Your task to perform on an android device: delete location history Image 0: 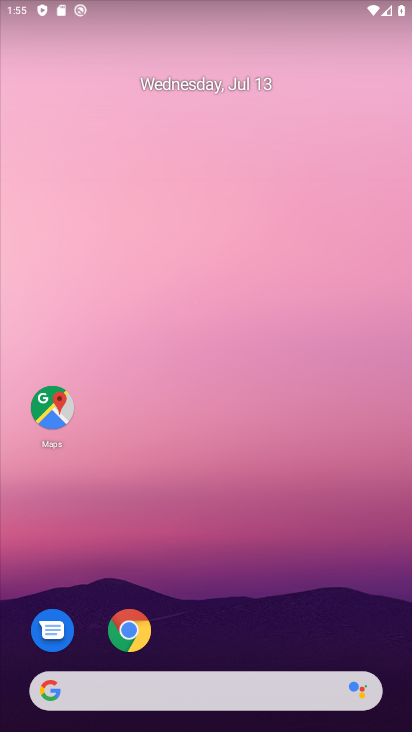
Step 0: drag from (213, 681) to (192, 351)
Your task to perform on an android device: delete location history Image 1: 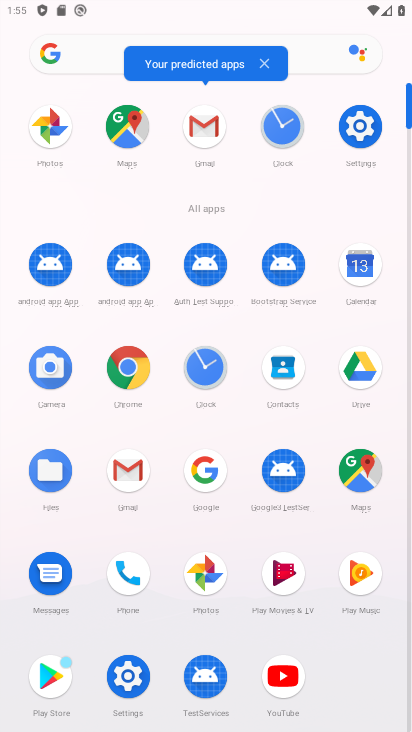
Step 1: click (357, 476)
Your task to perform on an android device: delete location history Image 2: 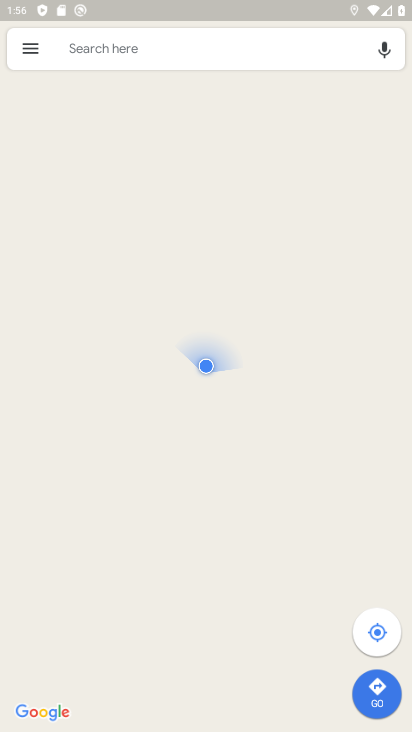
Step 2: click (34, 53)
Your task to perform on an android device: delete location history Image 3: 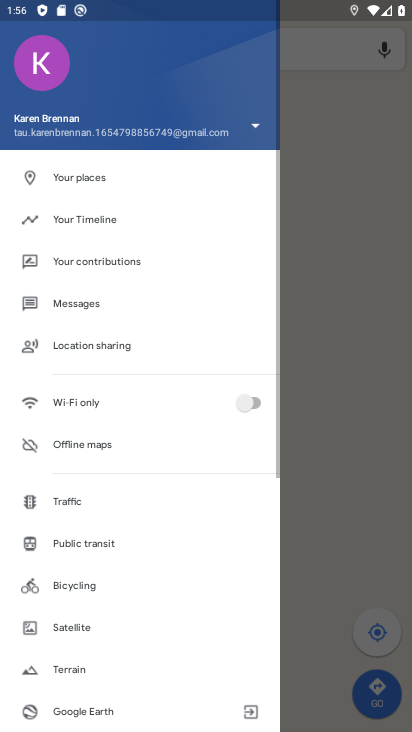
Step 3: click (104, 216)
Your task to perform on an android device: delete location history Image 4: 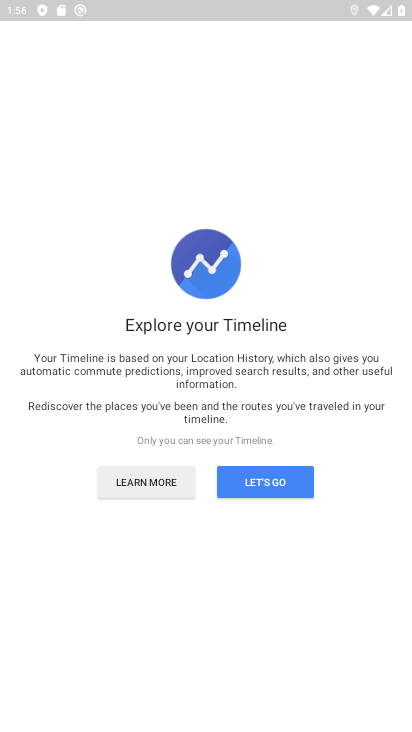
Step 4: click (276, 477)
Your task to perform on an android device: delete location history Image 5: 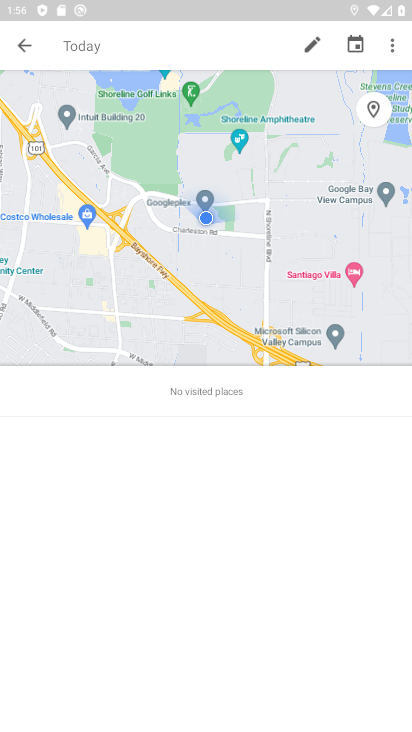
Step 5: click (392, 42)
Your task to perform on an android device: delete location history Image 6: 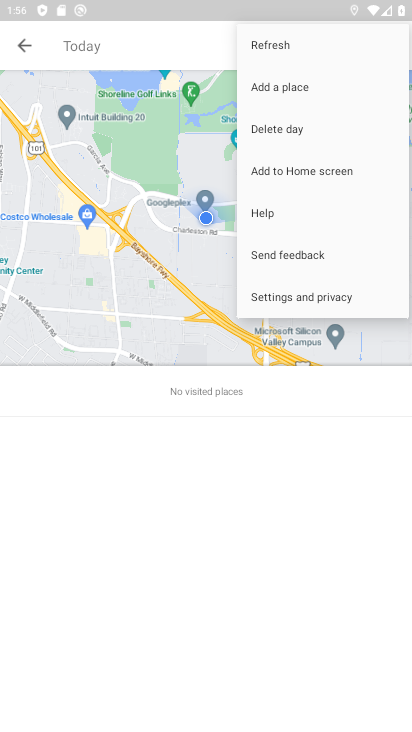
Step 6: click (300, 294)
Your task to perform on an android device: delete location history Image 7: 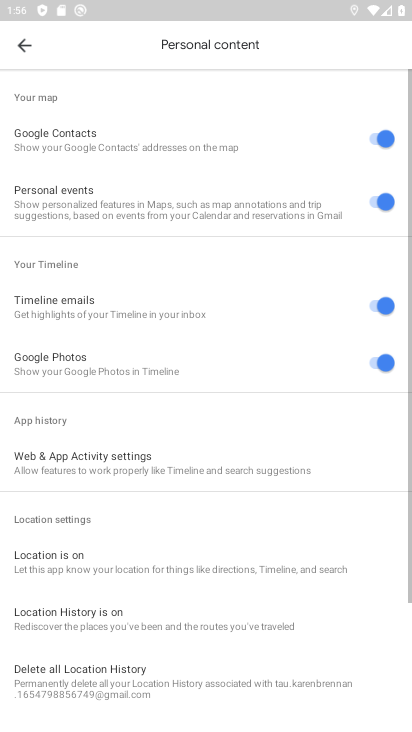
Step 7: click (174, 197)
Your task to perform on an android device: delete location history Image 8: 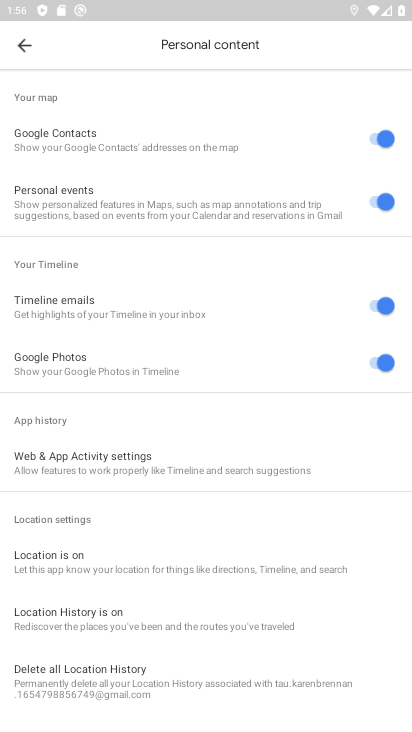
Step 8: drag from (167, 639) to (152, 282)
Your task to perform on an android device: delete location history Image 9: 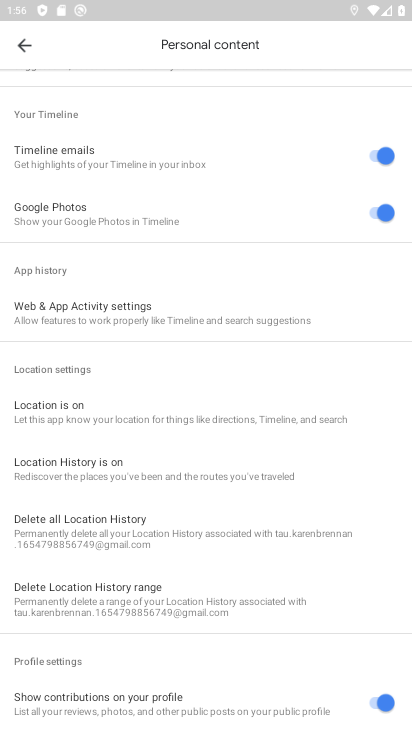
Step 9: click (164, 540)
Your task to perform on an android device: delete location history Image 10: 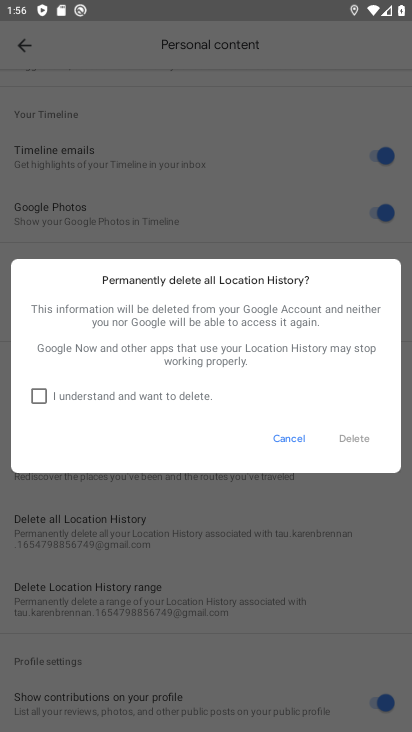
Step 10: click (101, 399)
Your task to perform on an android device: delete location history Image 11: 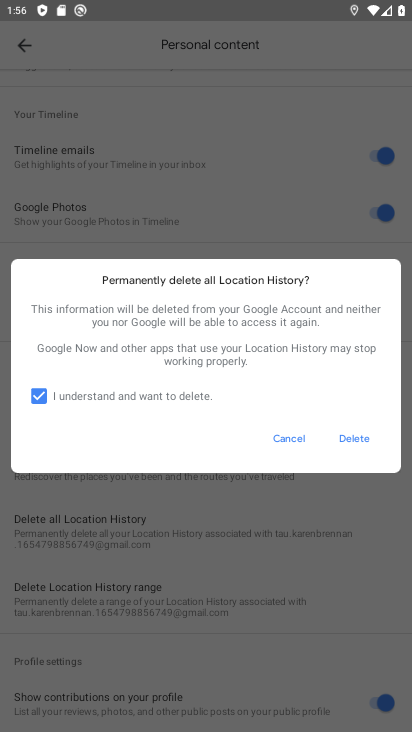
Step 11: click (353, 439)
Your task to perform on an android device: delete location history Image 12: 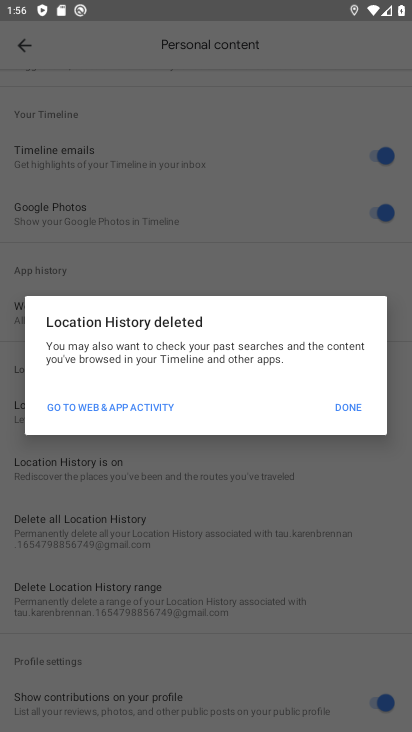
Step 12: click (348, 415)
Your task to perform on an android device: delete location history Image 13: 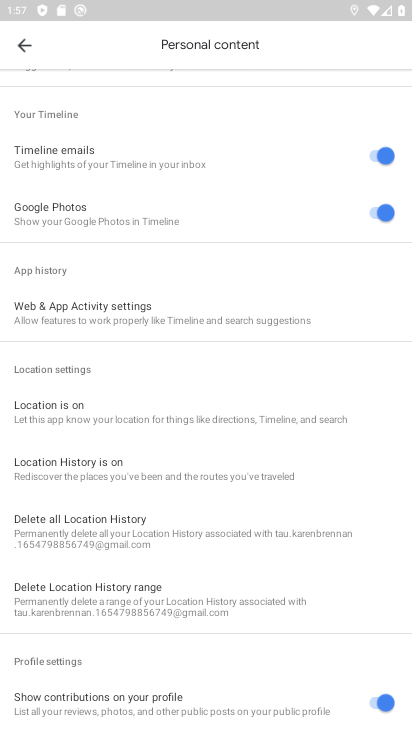
Step 13: task complete